Your task to perform on an android device: see tabs open on other devices in the chrome app Image 0: 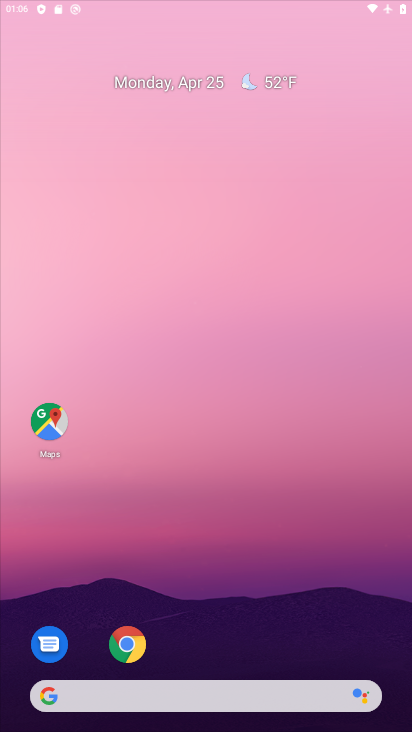
Step 0: click (140, 637)
Your task to perform on an android device: see tabs open on other devices in the chrome app Image 1: 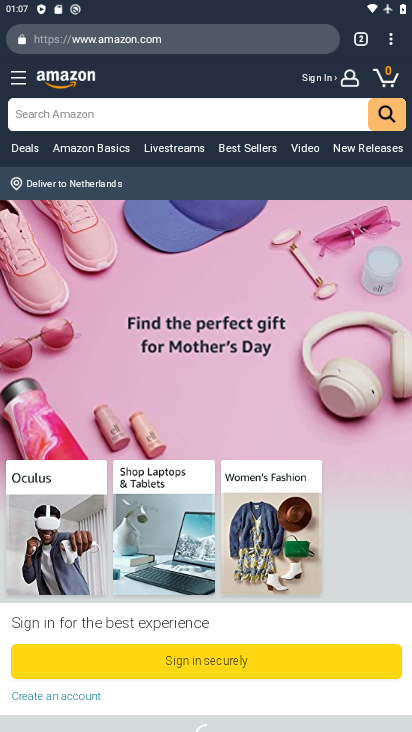
Step 1: click (390, 33)
Your task to perform on an android device: see tabs open on other devices in the chrome app Image 2: 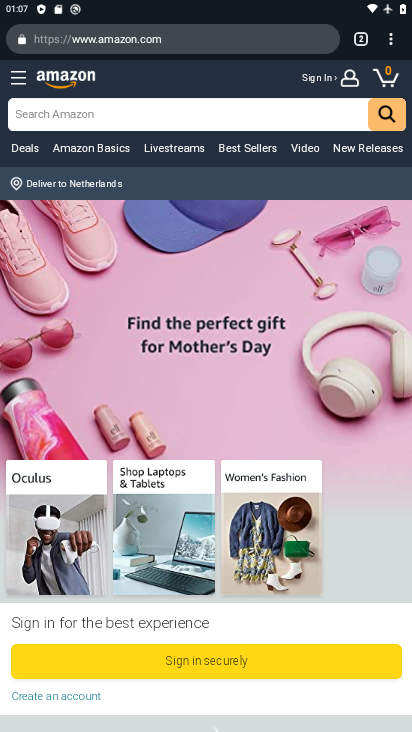
Step 2: click (390, 44)
Your task to perform on an android device: see tabs open on other devices in the chrome app Image 3: 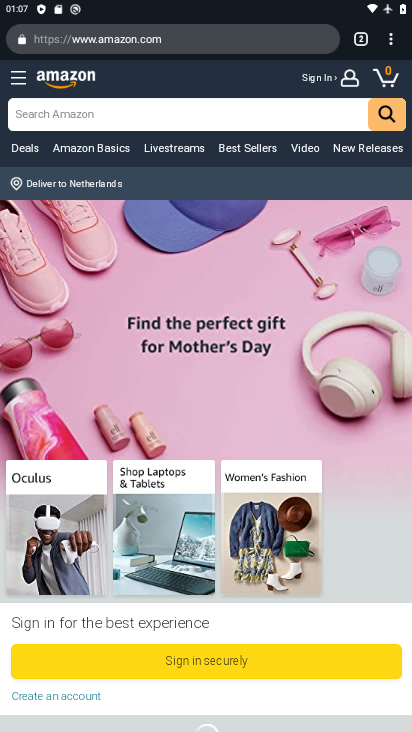
Step 3: click (390, 37)
Your task to perform on an android device: see tabs open on other devices in the chrome app Image 4: 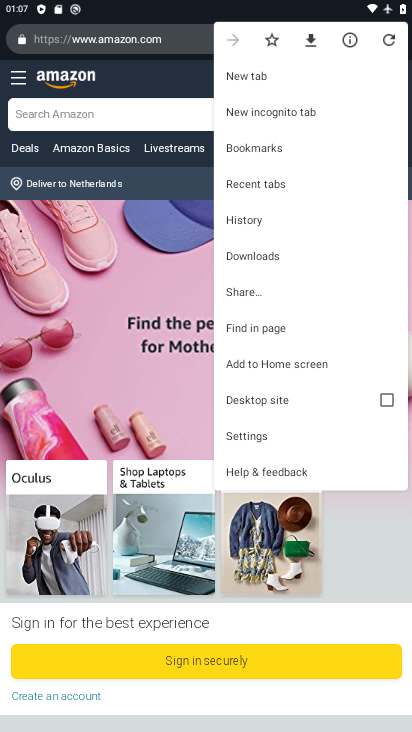
Step 4: click (261, 250)
Your task to perform on an android device: see tabs open on other devices in the chrome app Image 5: 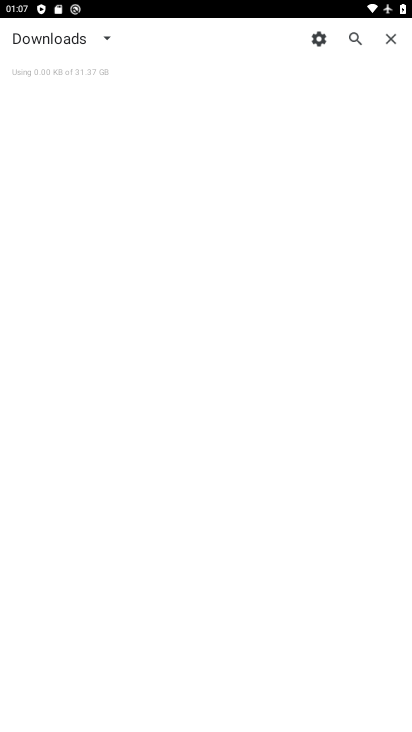
Step 5: task complete